Your task to perform on an android device: toggle improve location accuracy Image 0: 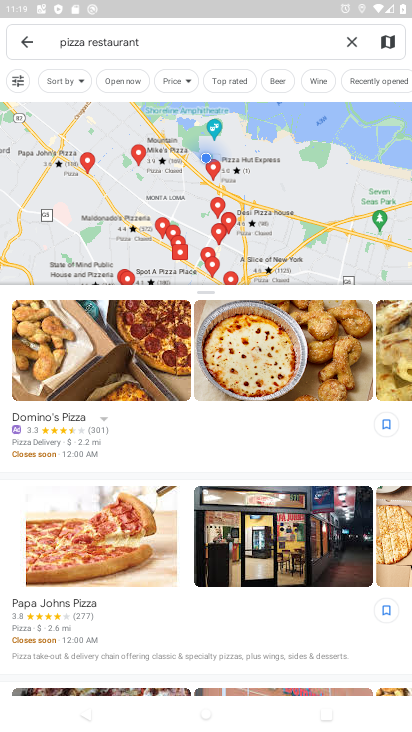
Step 0: press home button
Your task to perform on an android device: toggle improve location accuracy Image 1: 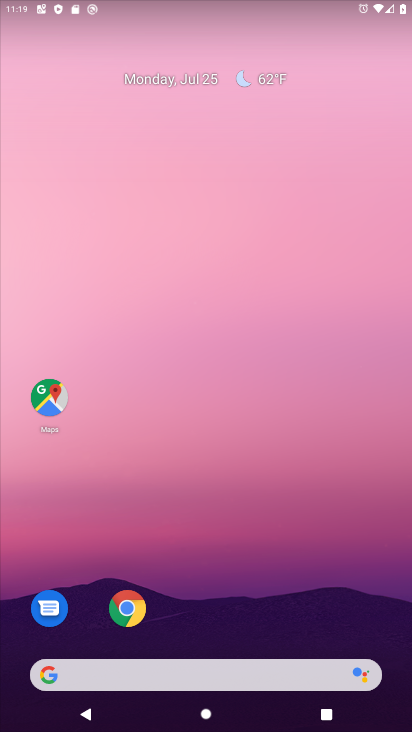
Step 1: drag from (192, 615) to (178, 16)
Your task to perform on an android device: toggle improve location accuracy Image 2: 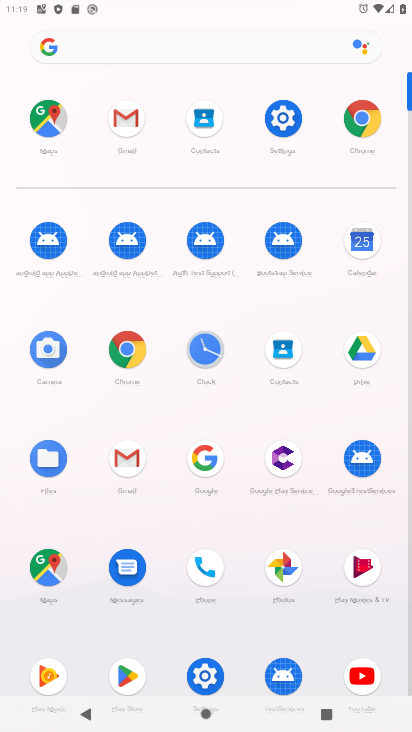
Step 2: click (208, 674)
Your task to perform on an android device: toggle improve location accuracy Image 3: 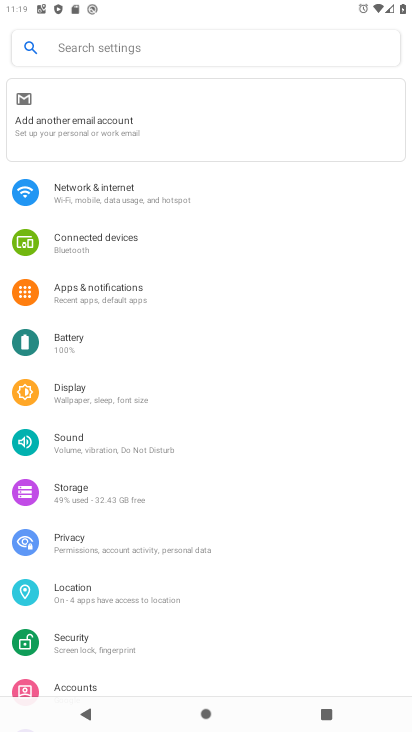
Step 3: click (113, 597)
Your task to perform on an android device: toggle improve location accuracy Image 4: 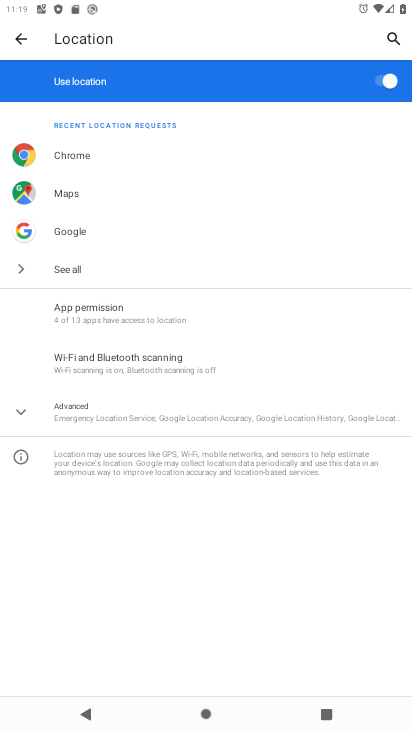
Step 4: click (85, 415)
Your task to perform on an android device: toggle improve location accuracy Image 5: 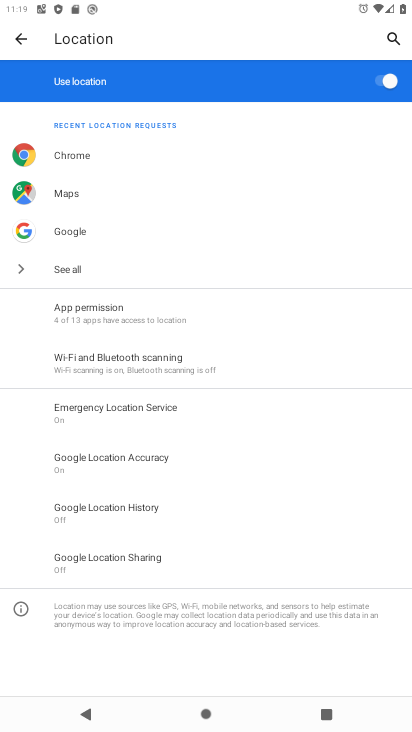
Step 5: click (133, 464)
Your task to perform on an android device: toggle improve location accuracy Image 6: 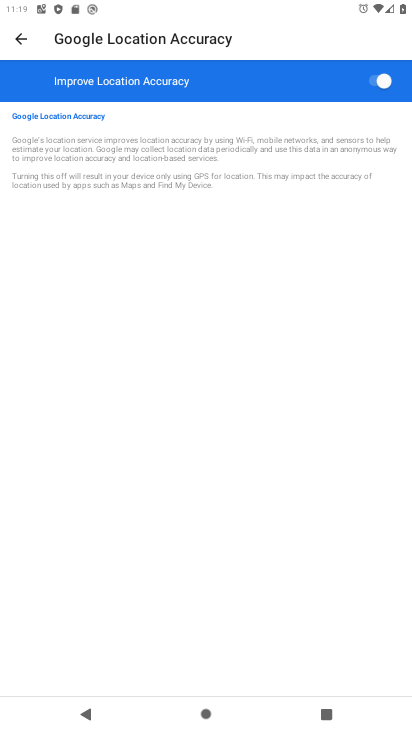
Step 6: click (353, 92)
Your task to perform on an android device: toggle improve location accuracy Image 7: 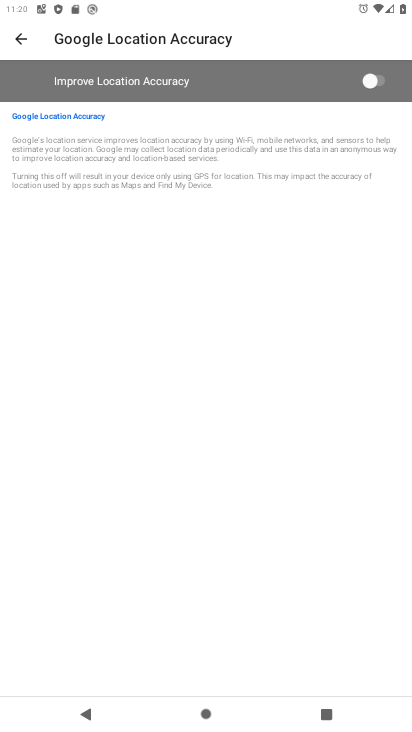
Step 7: task complete